Your task to perform on an android device: Add razer thresher to the cart on ebay Image 0: 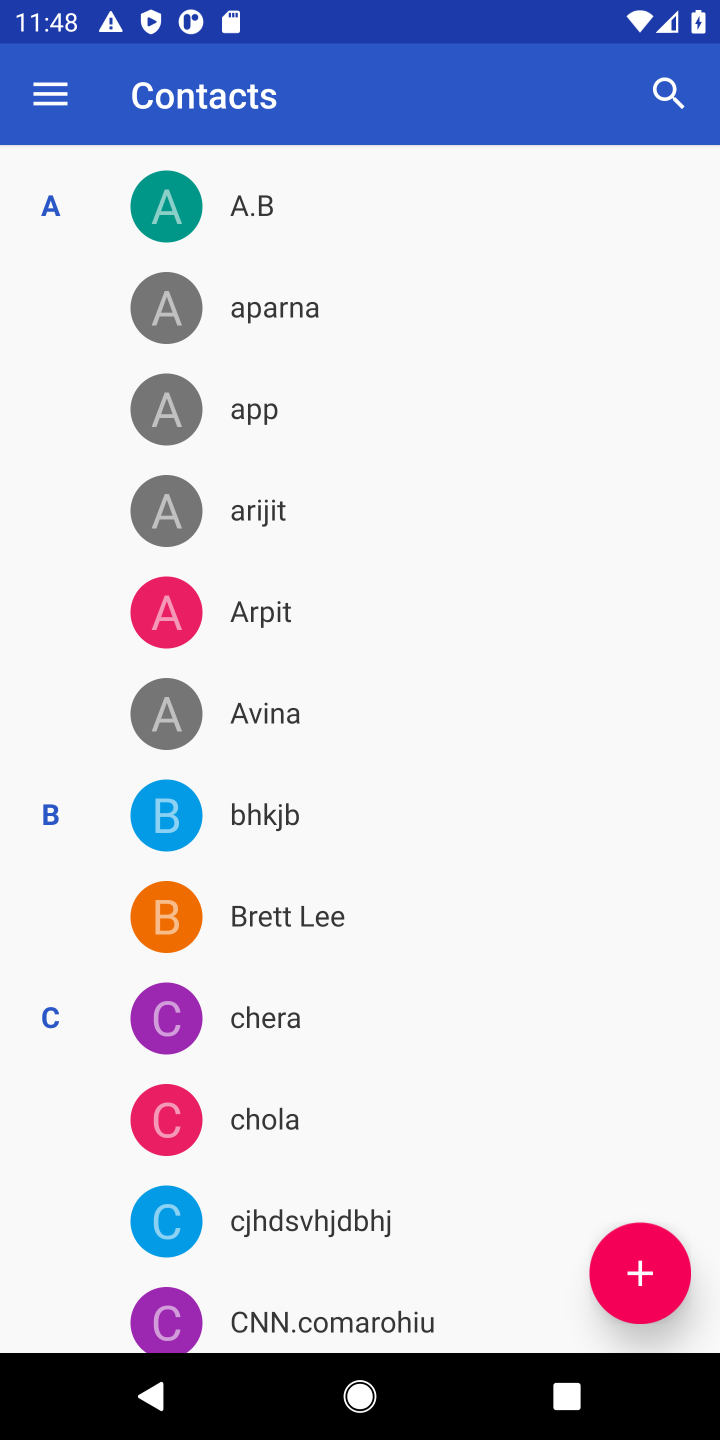
Step 0: press home button
Your task to perform on an android device: Add razer thresher to the cart on ebay Image 1: 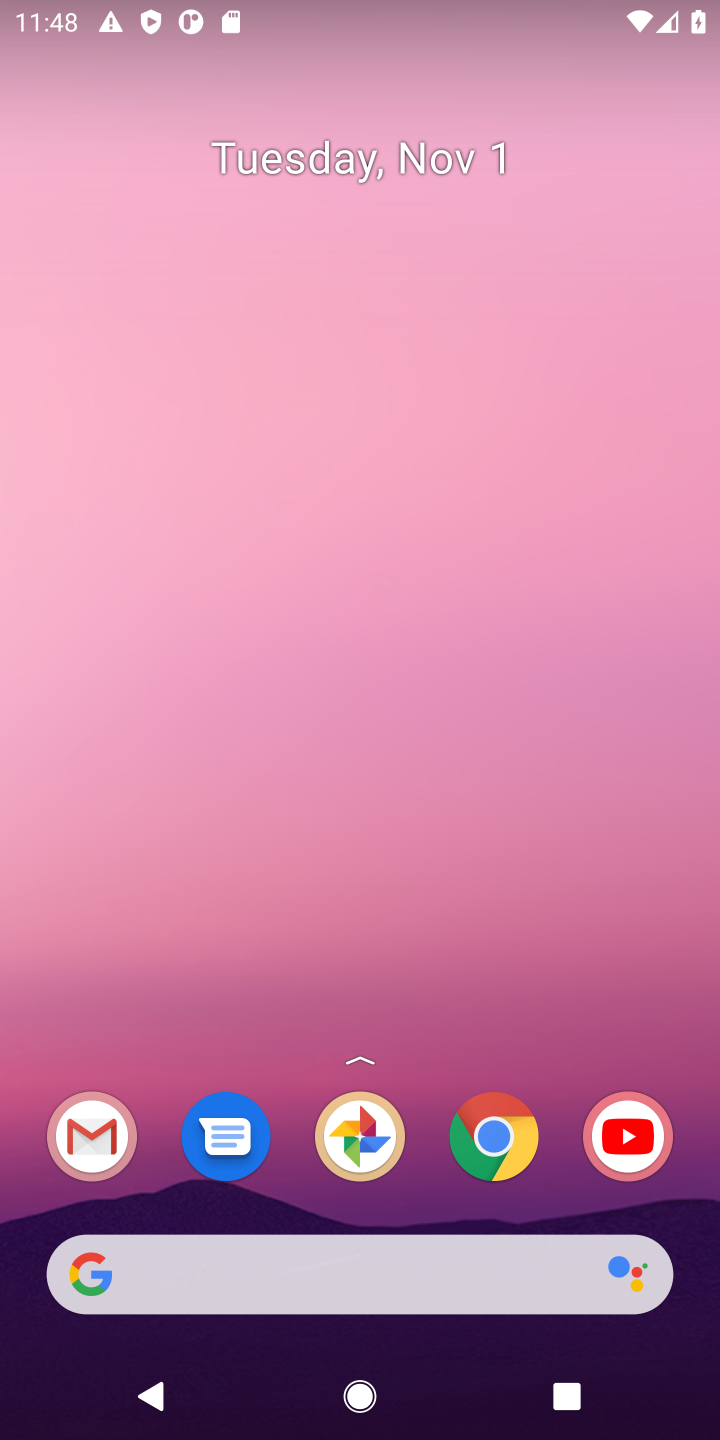
Step 1: click (493, 1136)
Your task to perform on an android device: Add razer thresher to the cart on ebay Image 2: 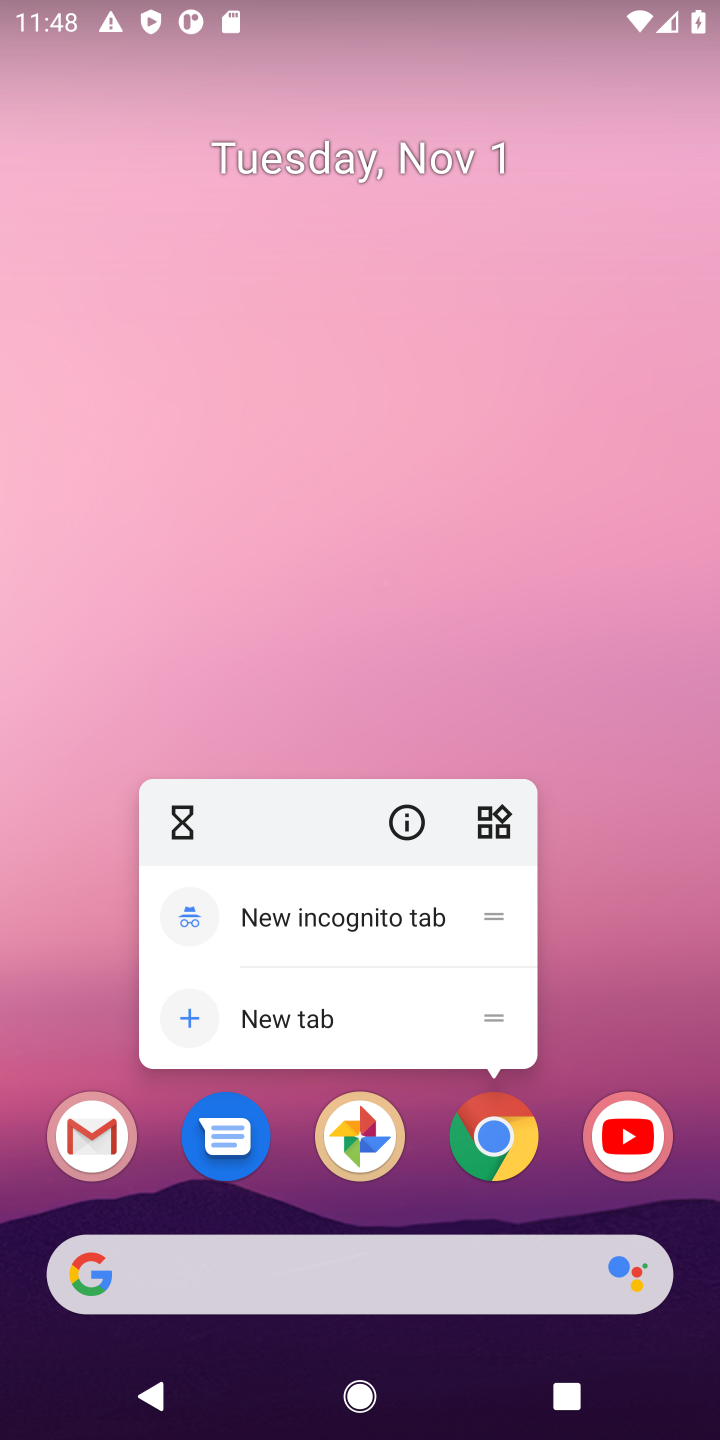
Step 2: click (495, 1153)
Your task to perform on an android device: Add razer thresher to the cart on ebay Image 3: 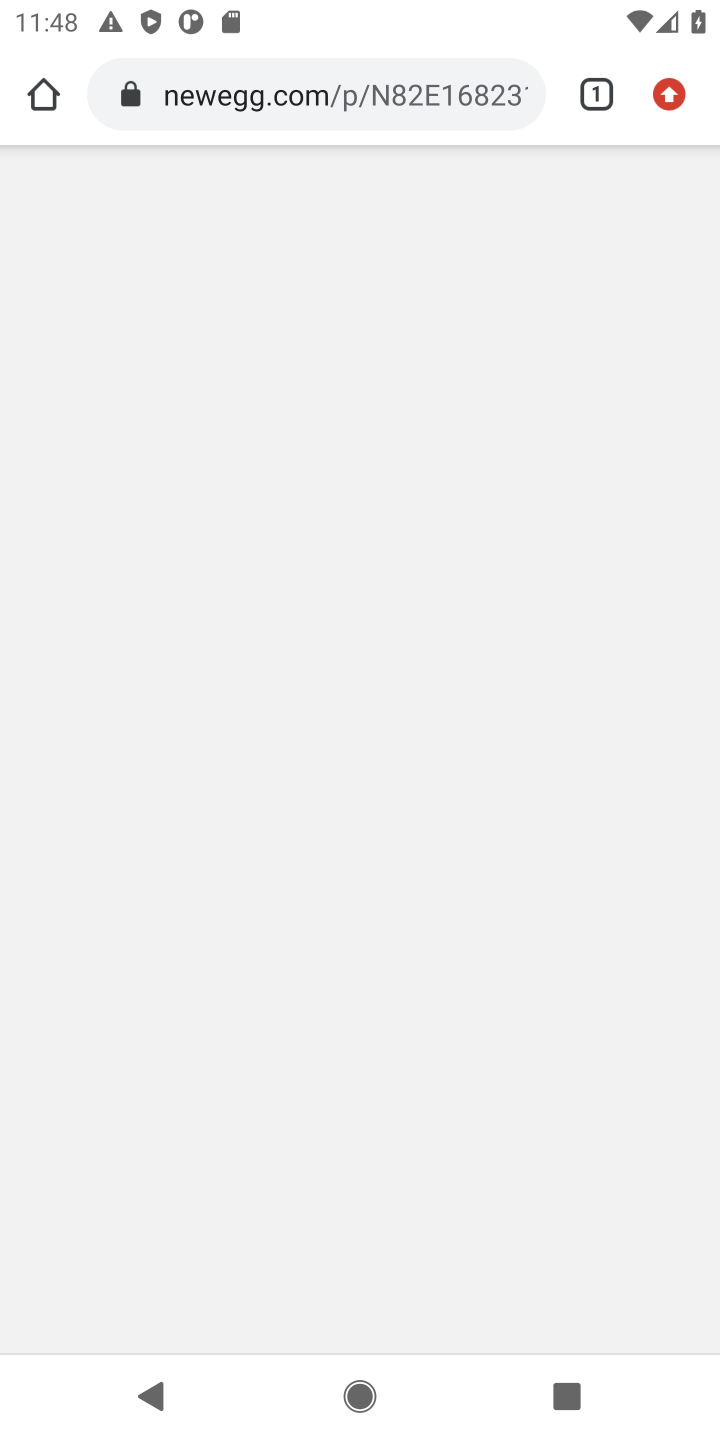
Step 3: click (374, 88)
Your task to perform on an android device: Add razer thresher to the cart on ebay Image 4: 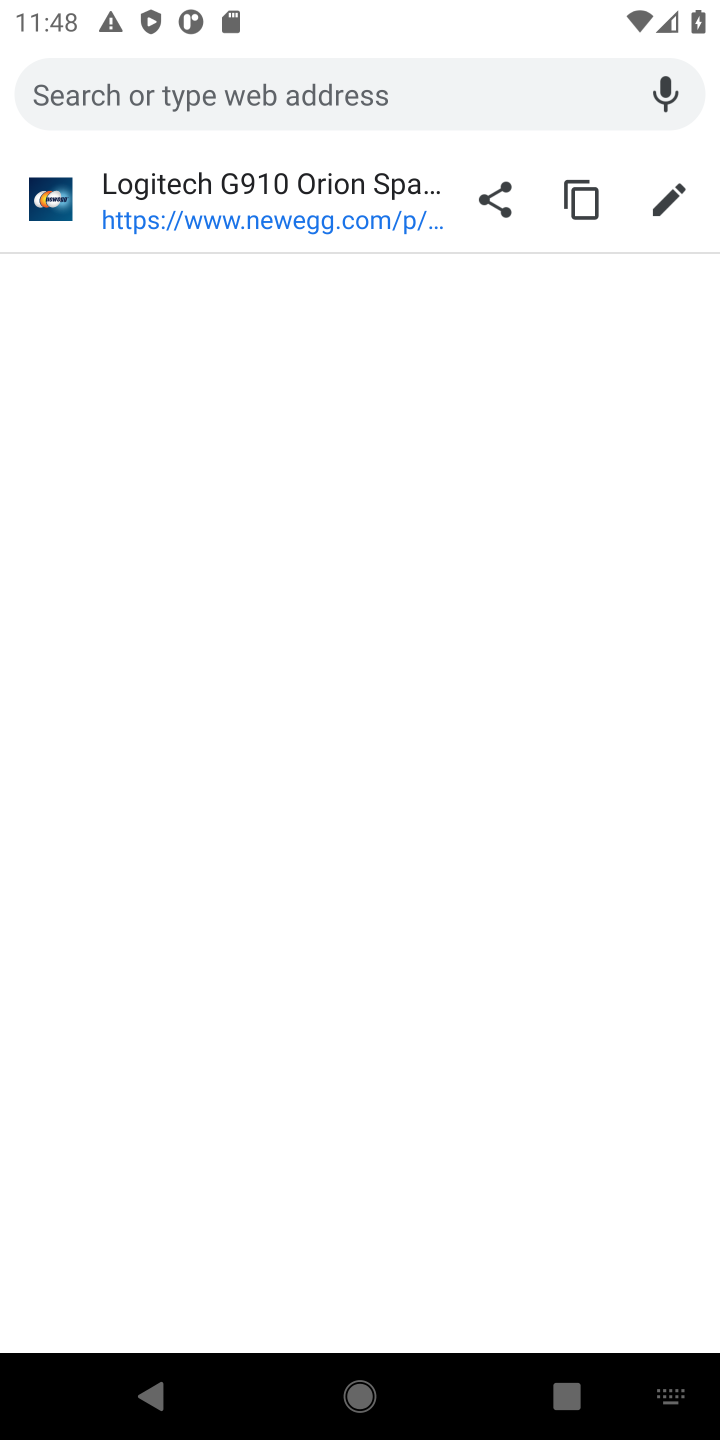
Step 4: type "ebay"
Your task to perform on an android device: Add razer thresher to the cart on ebay Image 5: 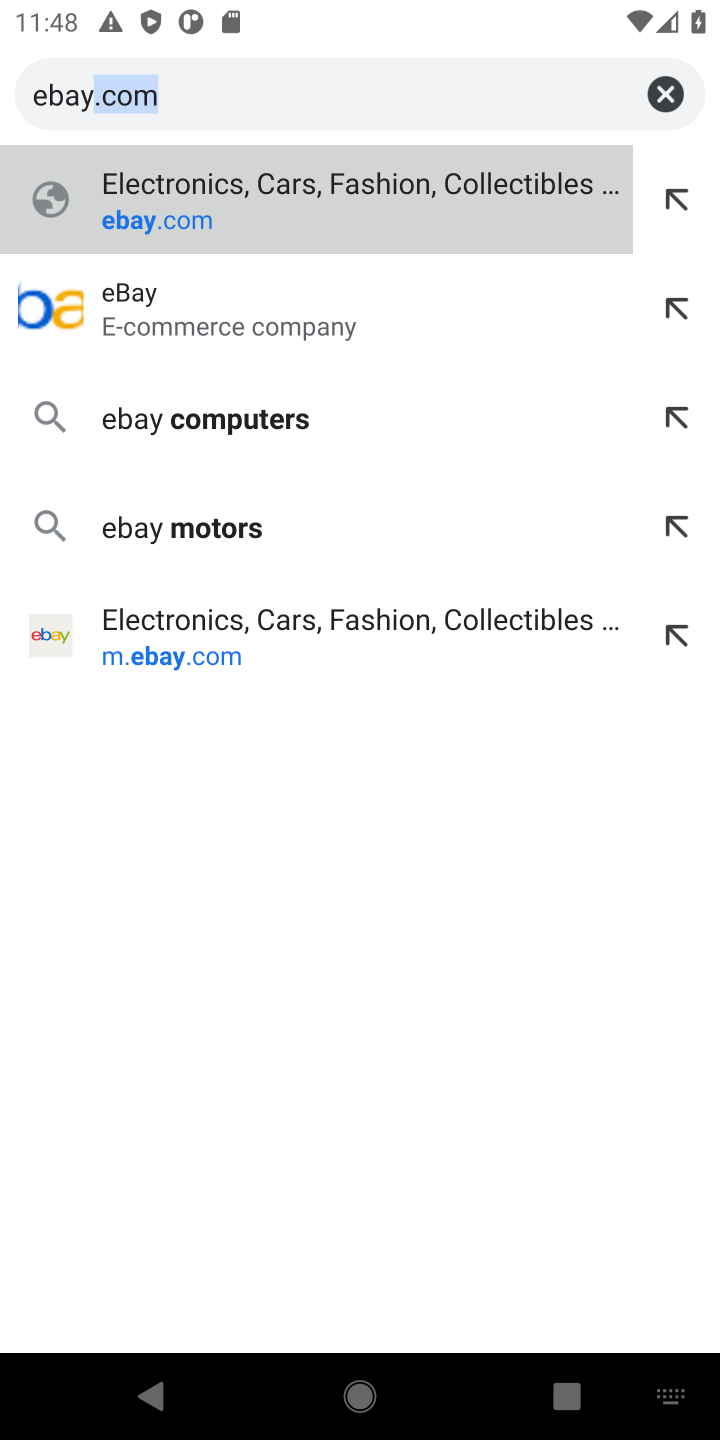
Step 5: type ""
Your task to perform on an android device: Add razer thresher to the cart on ebay Image 6: 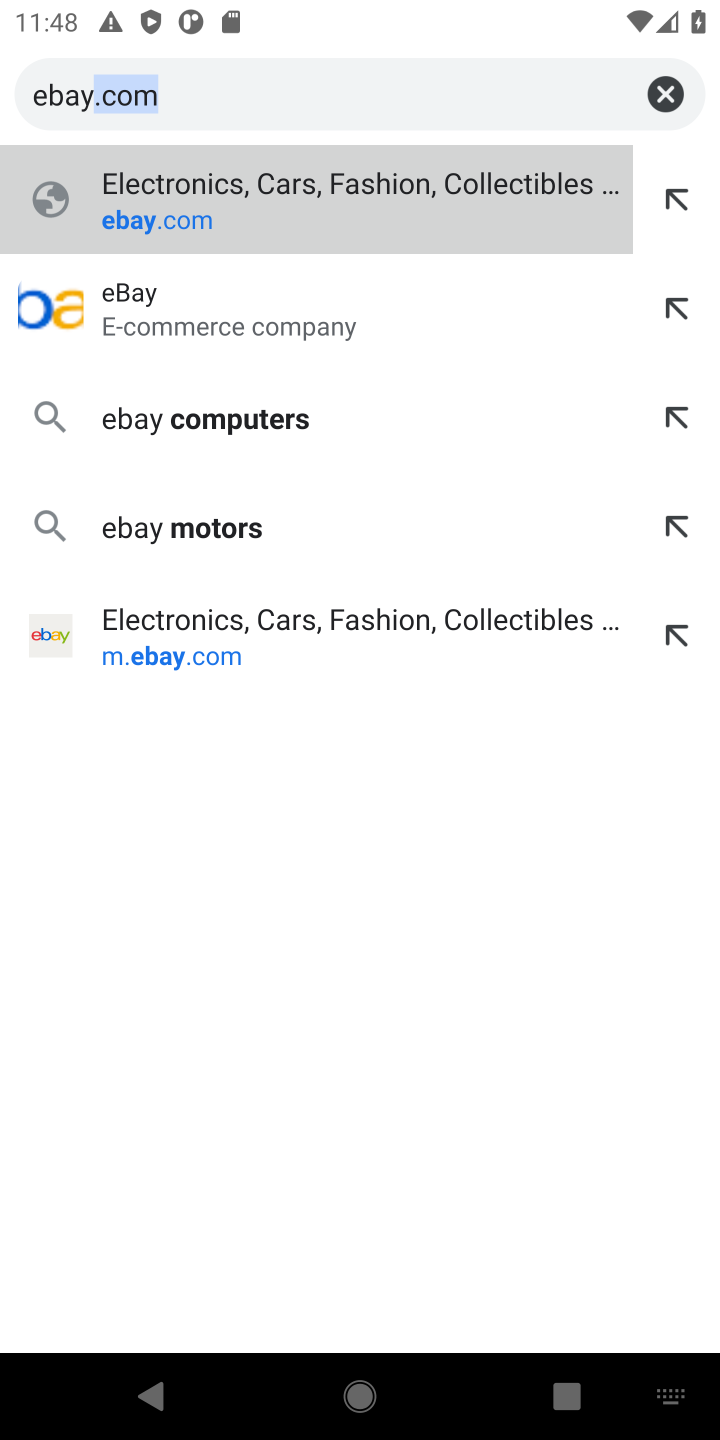
Step 6: click (333, 176)
Your task to perform on an android device: Add razer thresher to the cart on ebay Image 7: 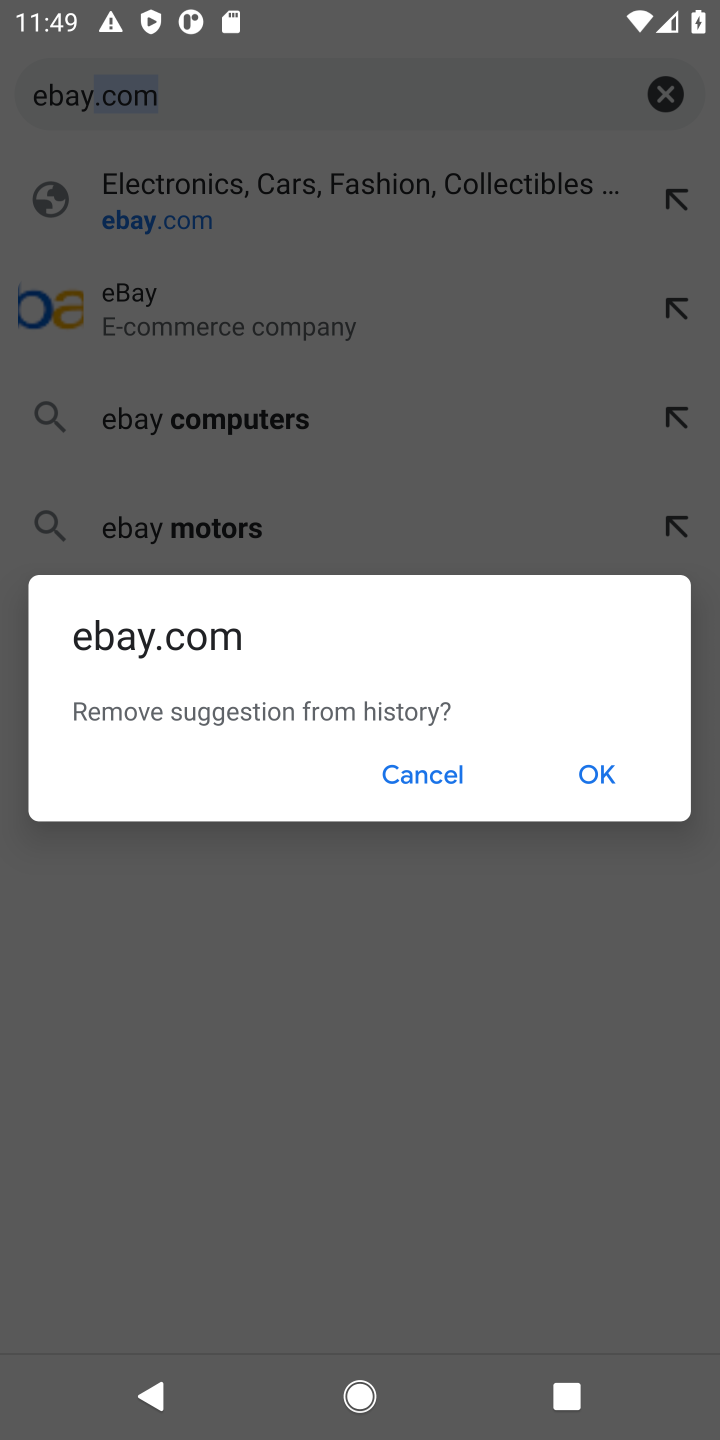
Step 7: click (599, 787)
Your task to perform on an android device: Add razer thresher to the cart on ebay Image 8: 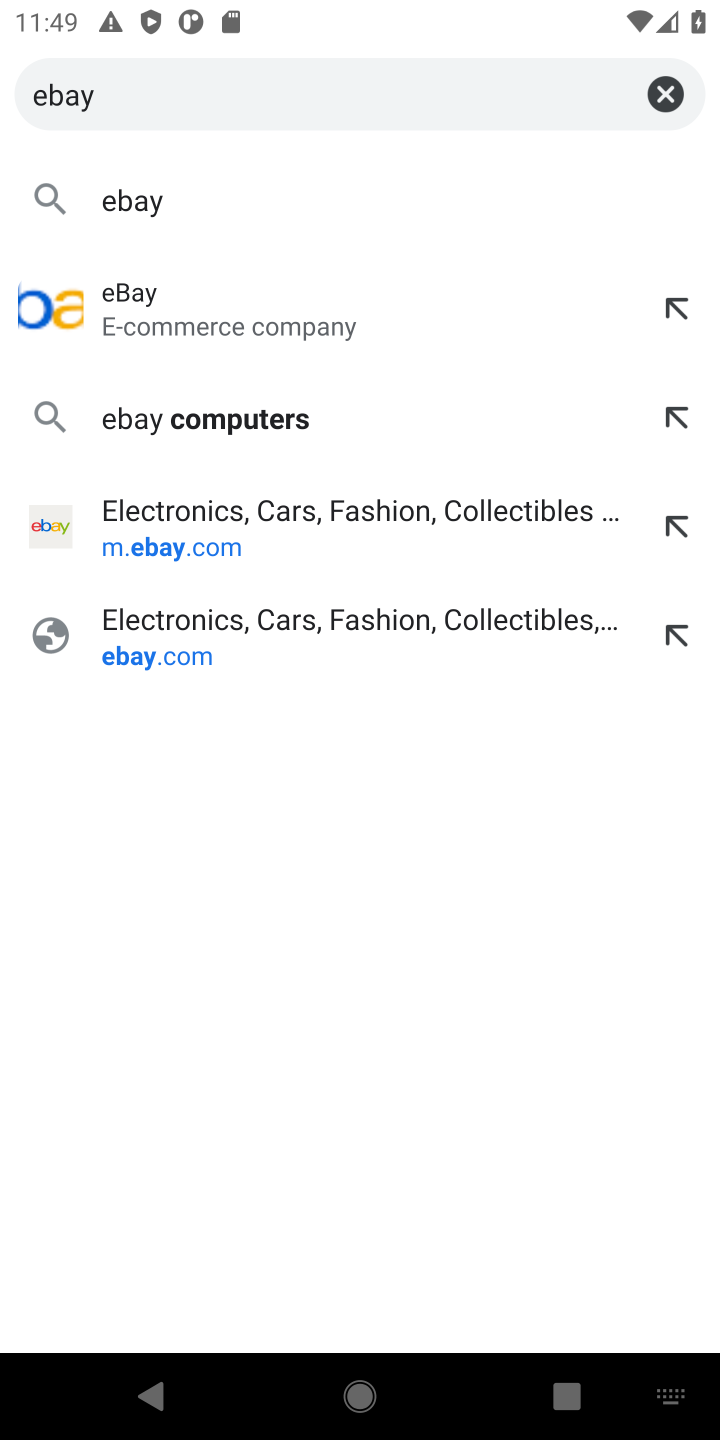
Step 8: click (264, 499)
Your task to perform on an android device: Add razer thresher to the cart on ebay Image 9: 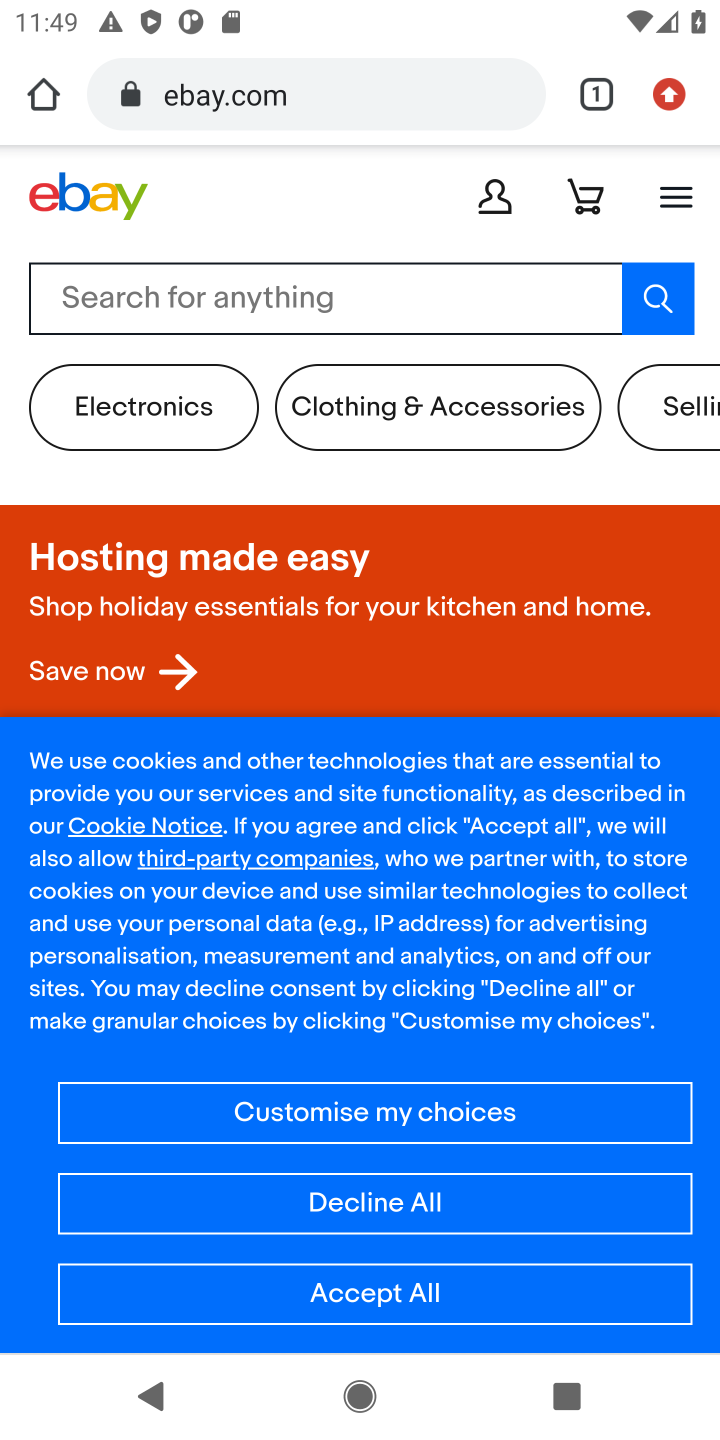
Step 9: click (327, 1305)
Your task to perform on an android device: Add razer thresher to the cart on ebay Image 10: 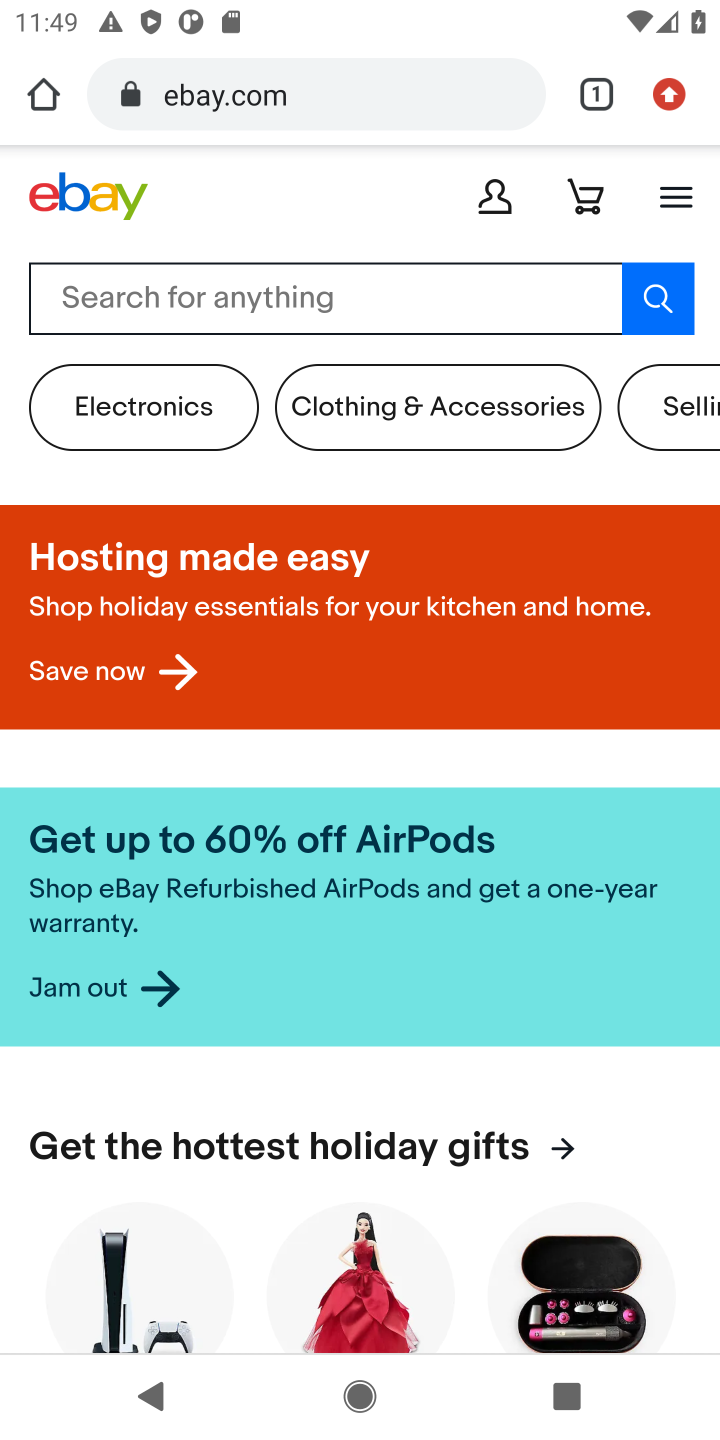
Step 10: click (249, 308)
Your task to perform on an android device: Add razer thresher to the cart on ebay Image 11: 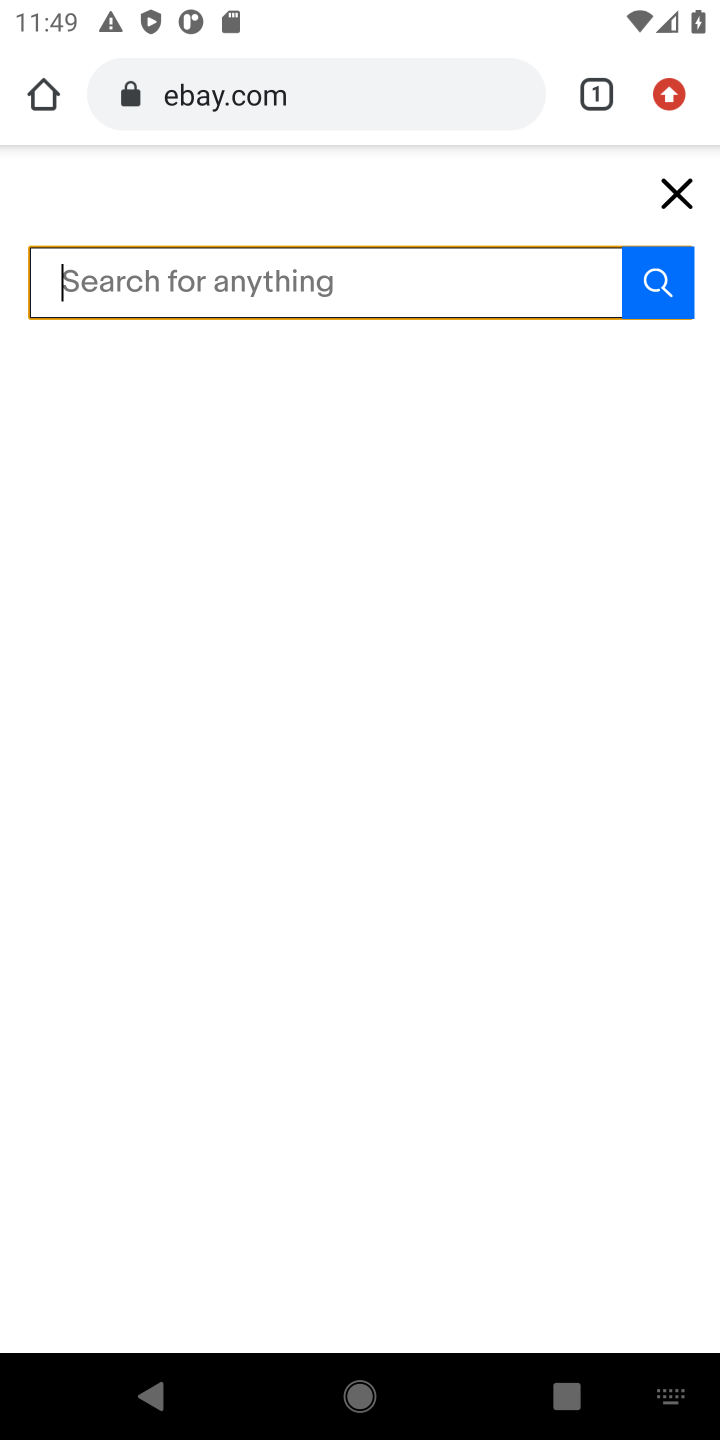
Step 11: type " razer thresher"
Your task to perform on an android device: Add razer thresher to the cart on ebay Image 12: 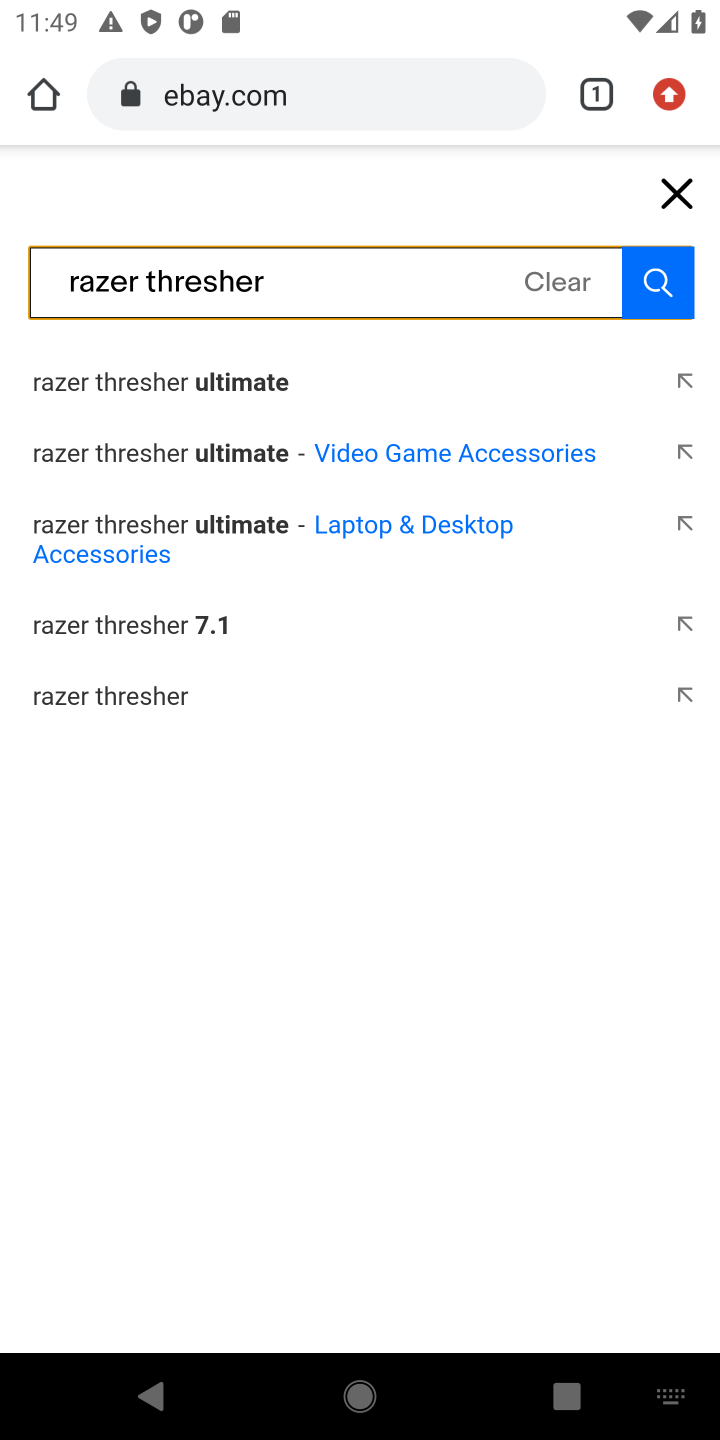
Step 12: click (674, 307)
Your task to perform on an android device: Add razer thresher to the cart on ebay Image 13: 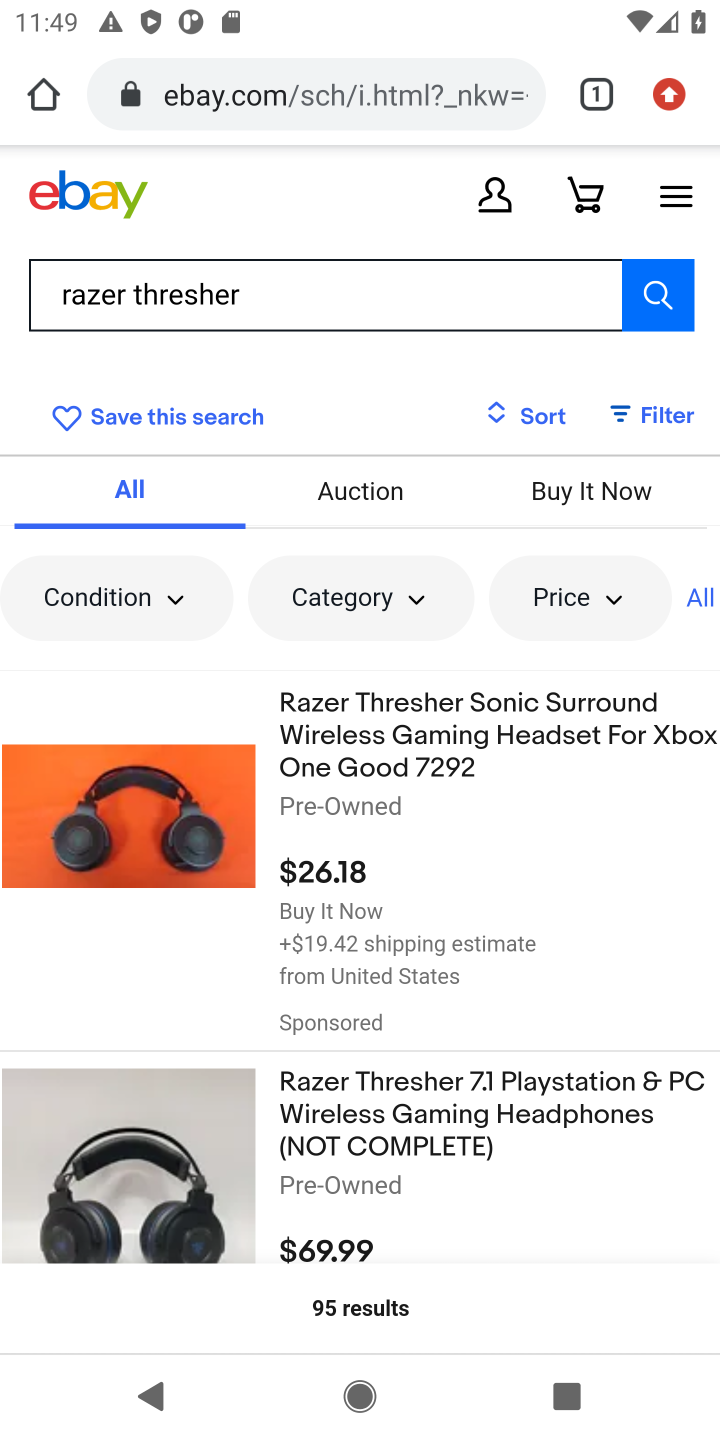
Step 13: click (445, 759)
Your task to perform on an android device: Add razer thresher to the cart on ebay Image 14: 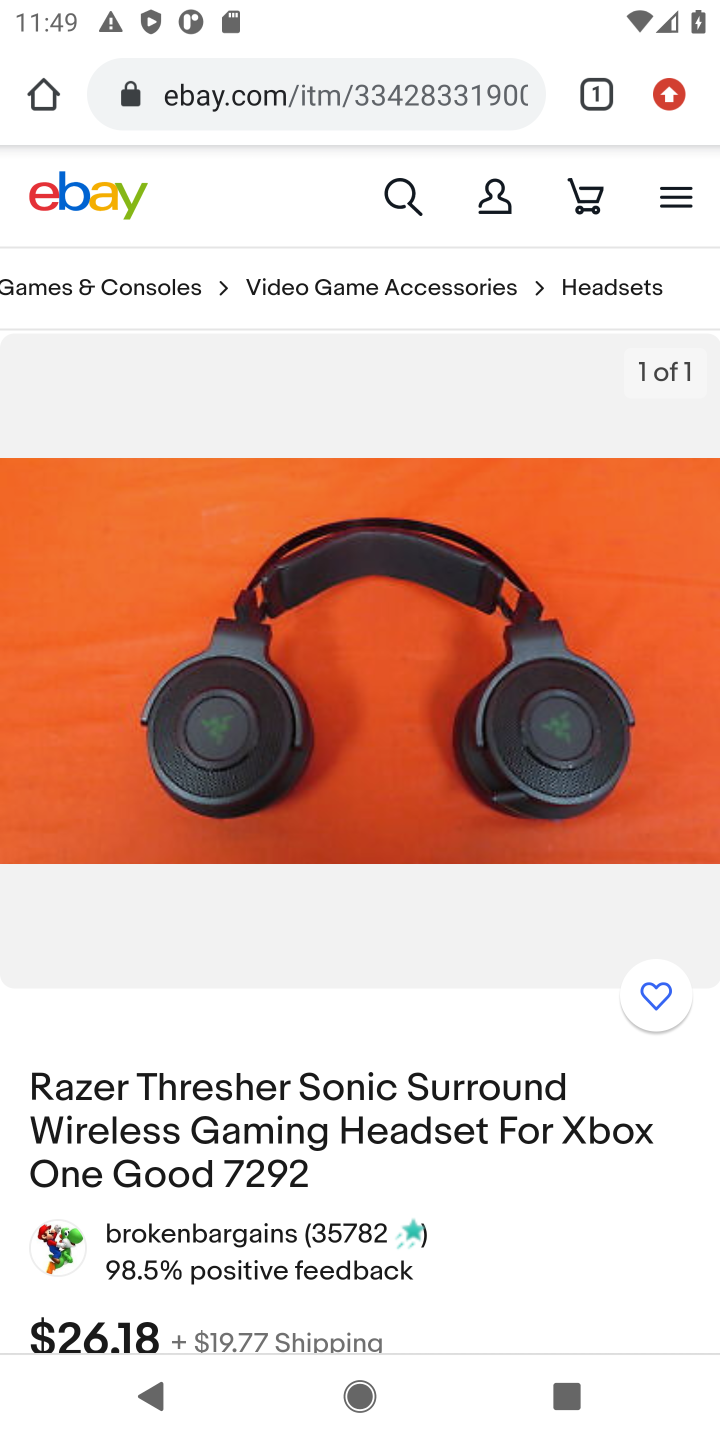
Step 14: drag from (335, 1176) to (367, 357)
Your task to perform on an android device: Add razer thresher to the cart on ebay Image 15: 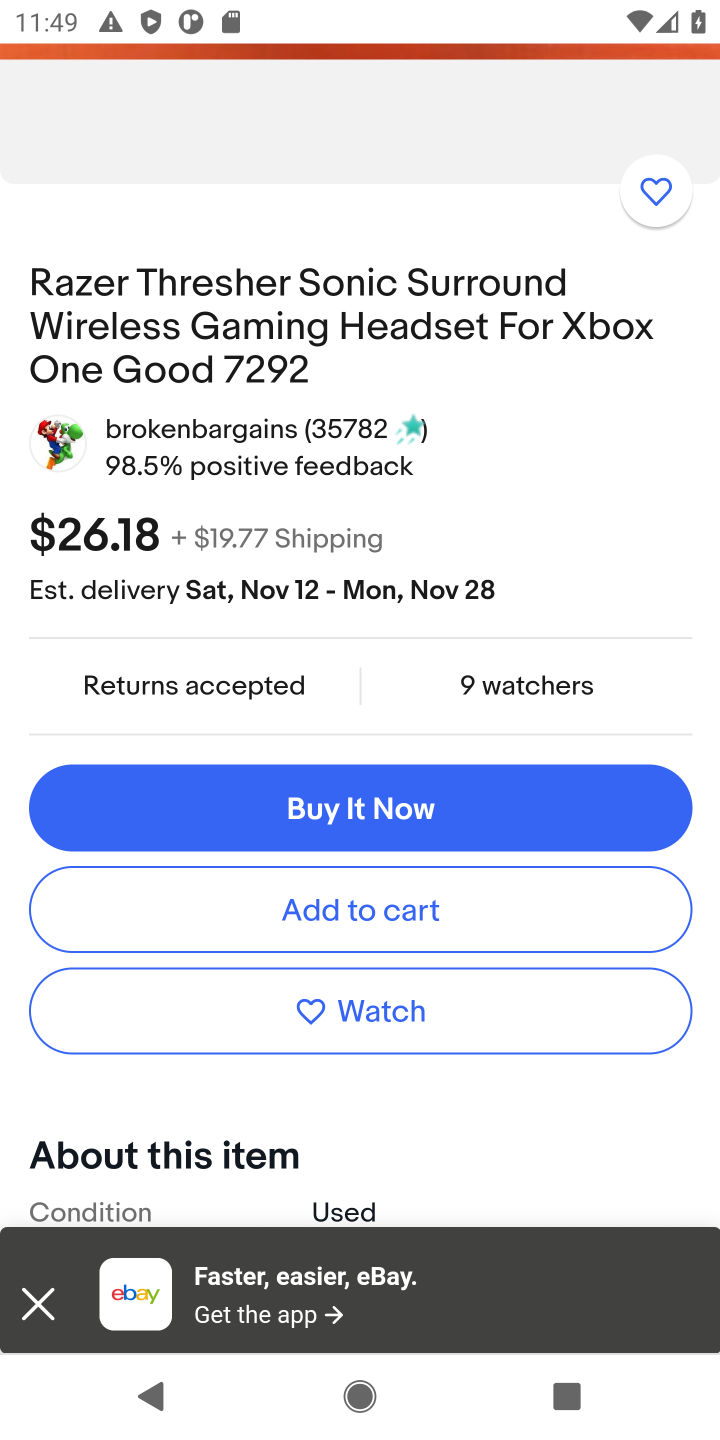
Step 15: click (313, 902)
Your task to perform on an android device: Add razer thresher to the cart on ebay Image 16: 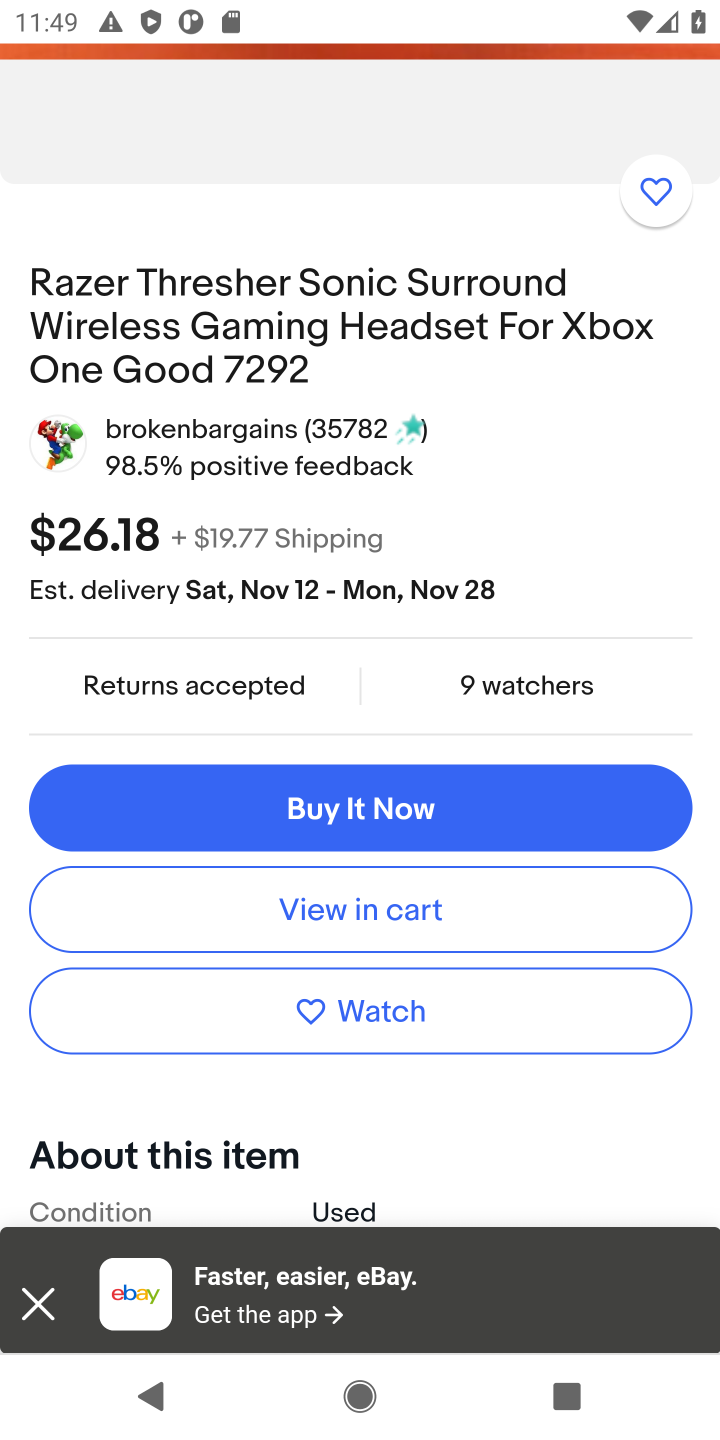
Step 16: click (313, 902)
Your task to perform on an android device: Add razer thresher to the cart on ebay Image 17: 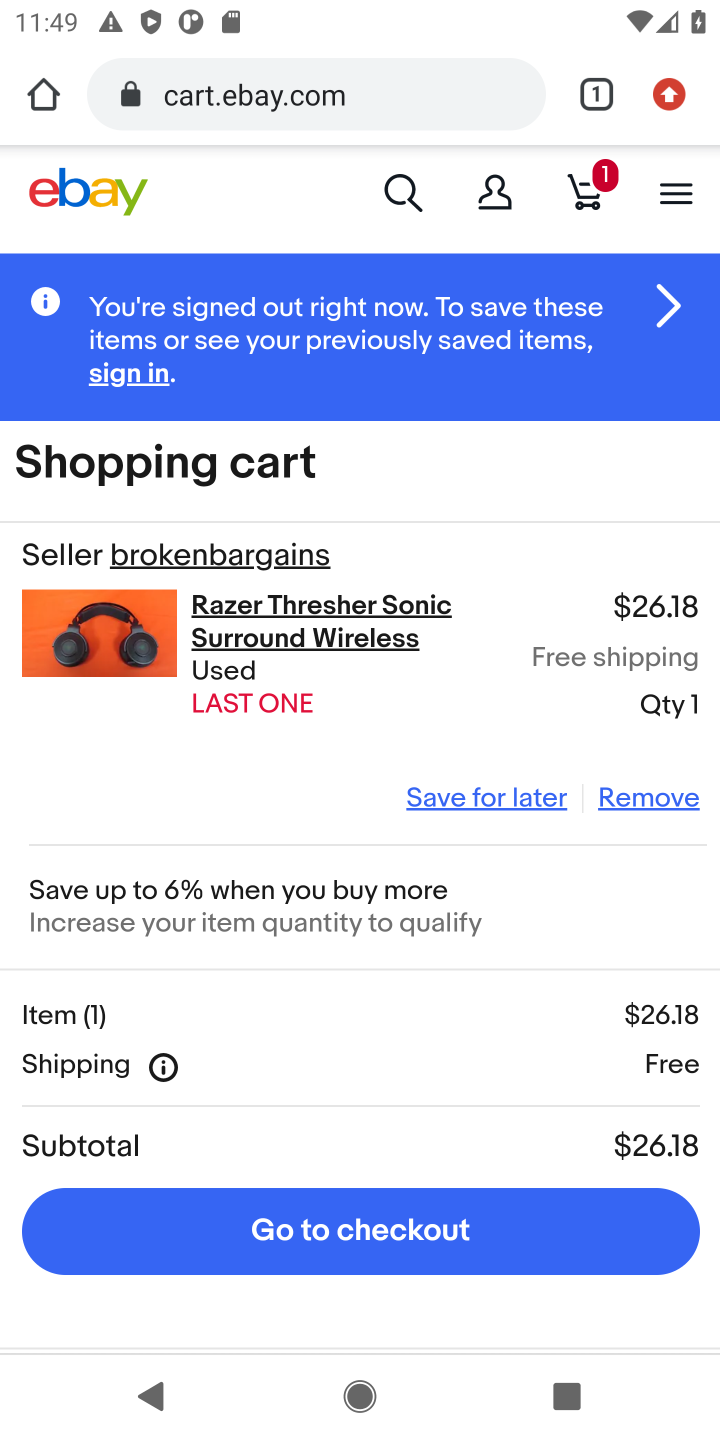
Step 17: click (401, 1229)
Your task to perform on an android device: Add razer thresher to the cart on ebay Image 18: 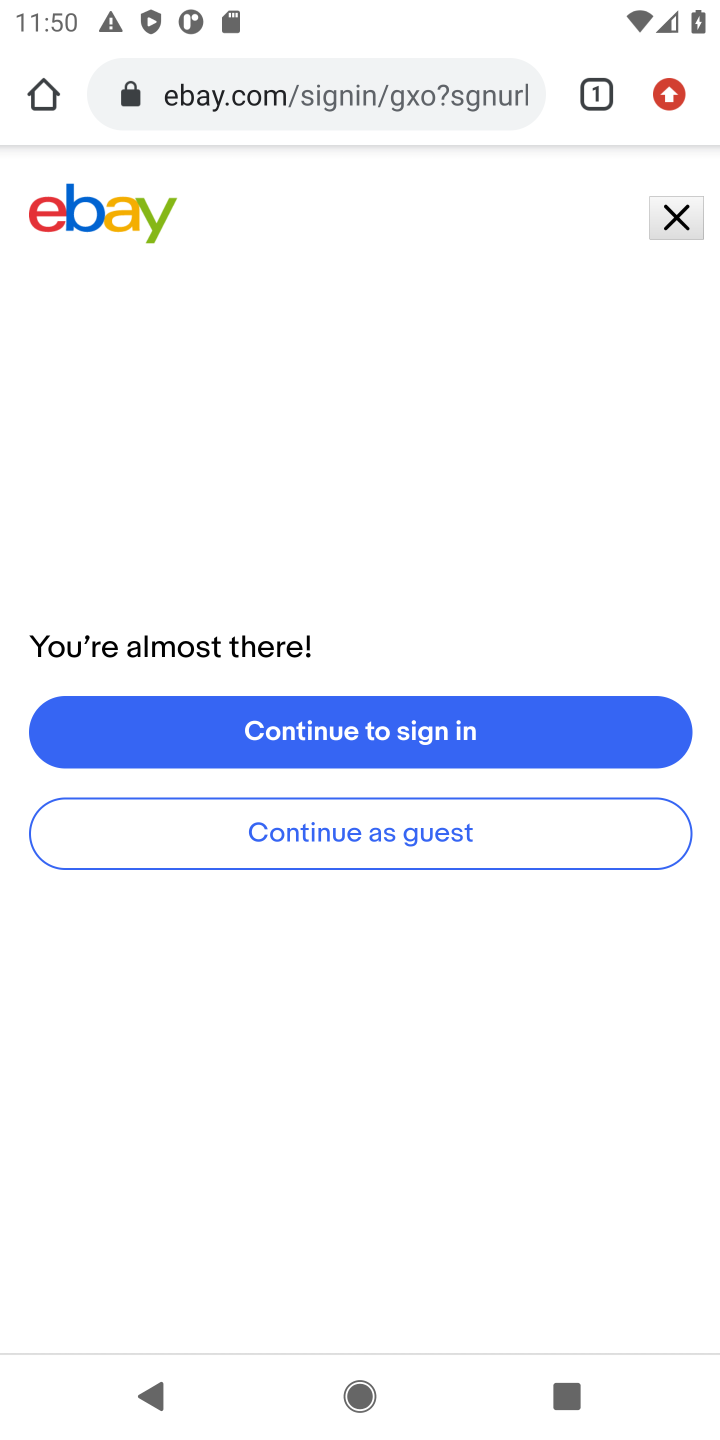
Step 18: click (451, 795)
Your task to perform on an android device: Add razer thresher to the cart on ebay Image 19: 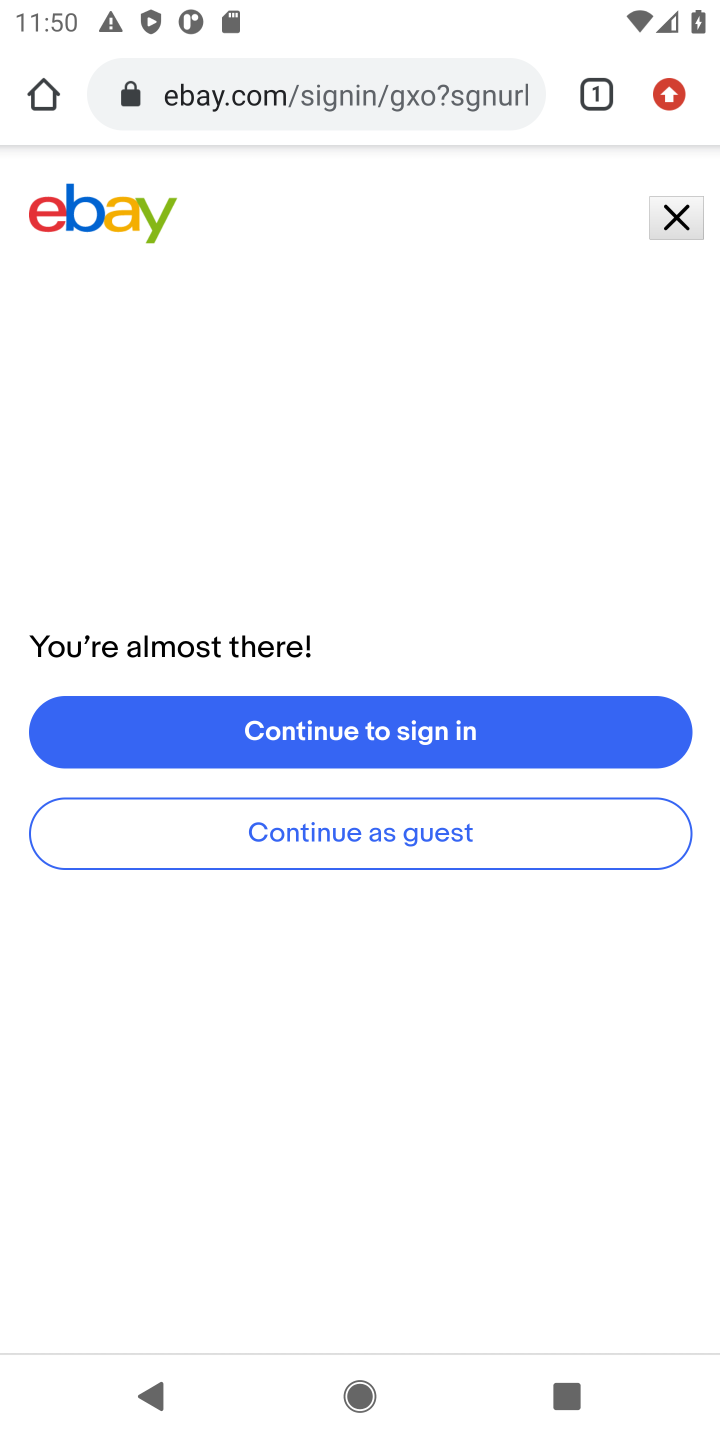
Step 19: task complete